Your task to perform on an android device: set default search engine in the chrome app Image 0: 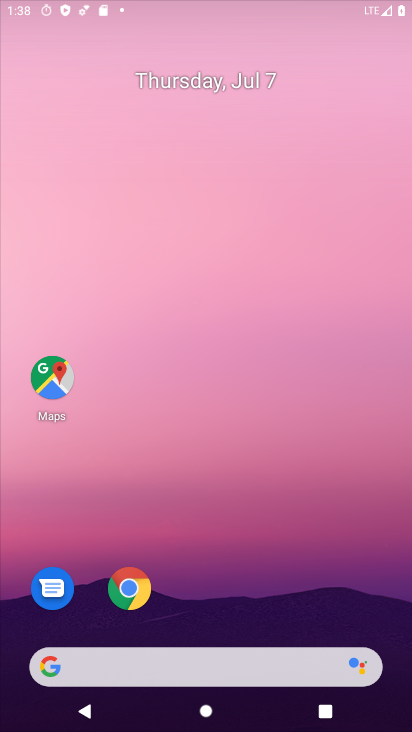
Step 0: drag from (227, 566) to (232, 182)
Your task to perform on an android device: set default search engine in the chrome app Image 1: 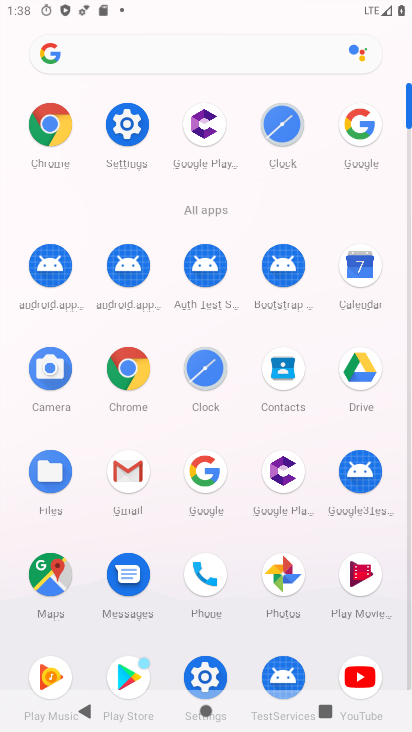
Step 1: click (277, 579)
Your task to perform on an android device: set default search engine in the chrome app Image 2: 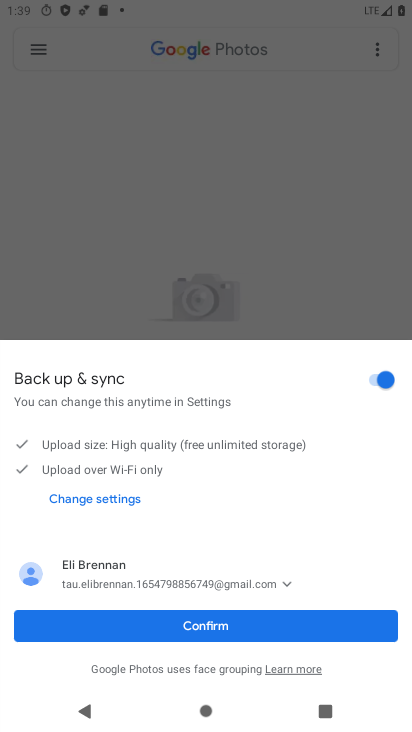
Step 2: click (202, 629)
Your task to perform on an android device: set default search engine in the chrome app Image 3: 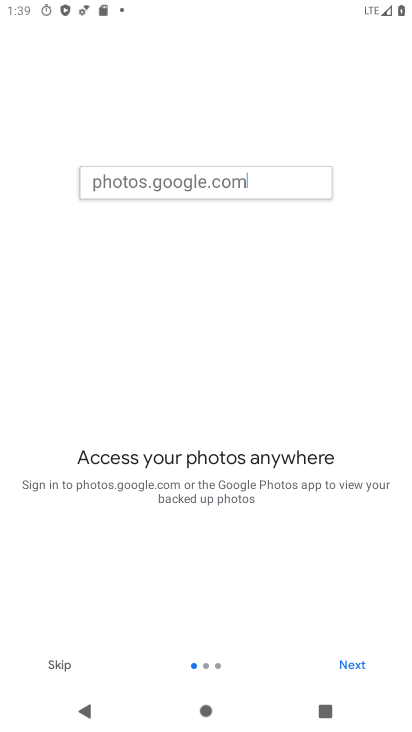
Step 3: click (344, 661)
Your task to perform on an android device: set default search engine in the chrome app Image 4: 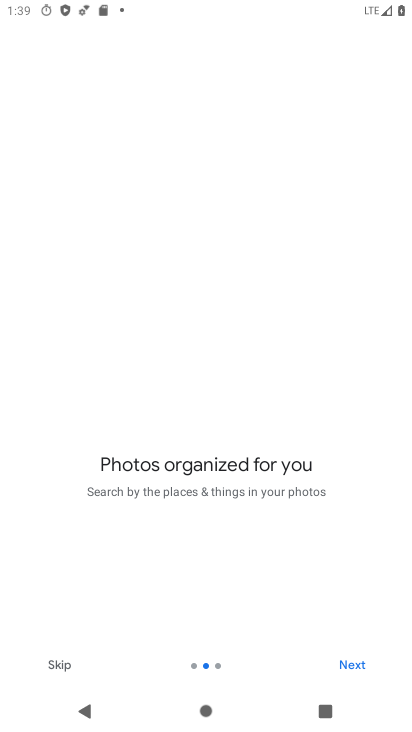
Step 4: click (344, 661)
Your task to perform on an android device: set default search engine in the chrome app Image 5: 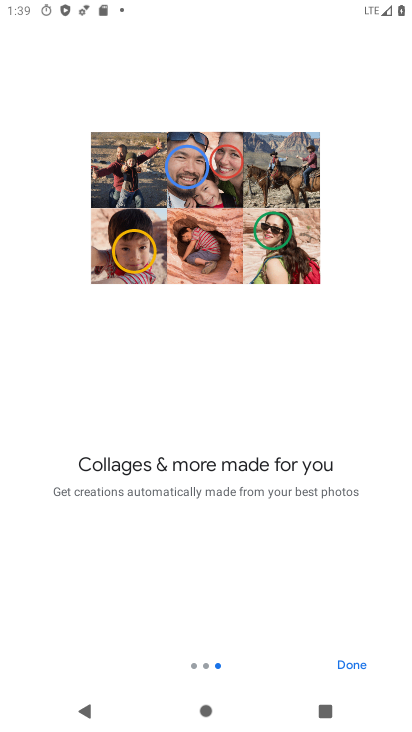
Step 5: click (344, 661)
Your task to perform on an android device: set default search engine in the chrome app Image 6: 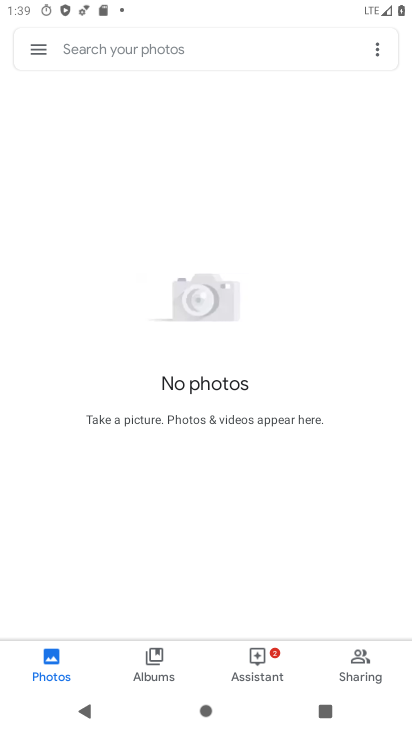
Step 6: click (346, 661)
Your task to perform on an android device: set default search engine in the chrome app Image 7: 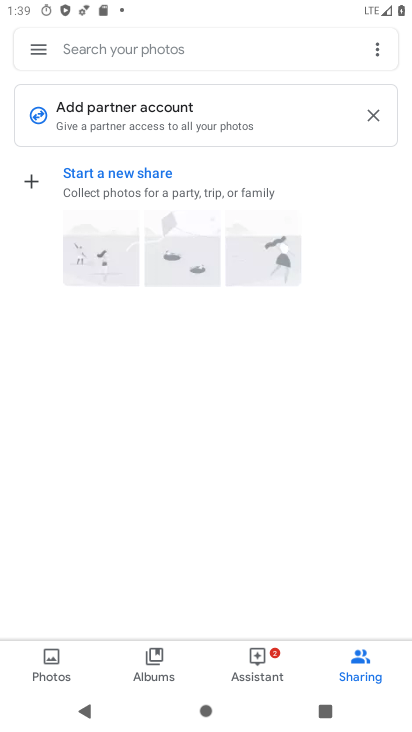
Step 7: click (258, 665)
Your task to perform on an android device: set default search engine in the chrome app Image 8: 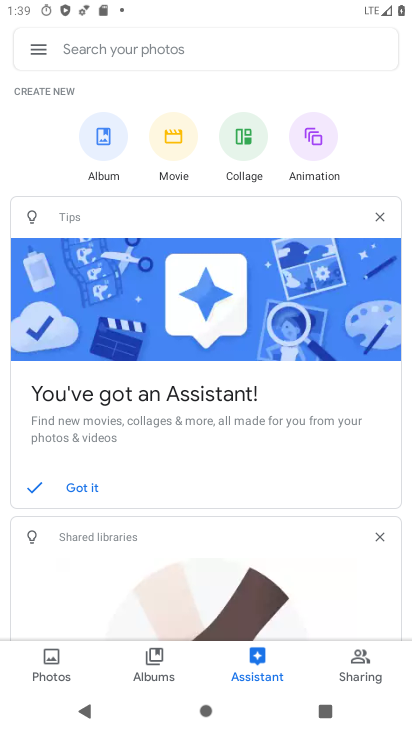
Step 8: task complete